Your task to perform on an android device: Open ESPN.com Image 0: 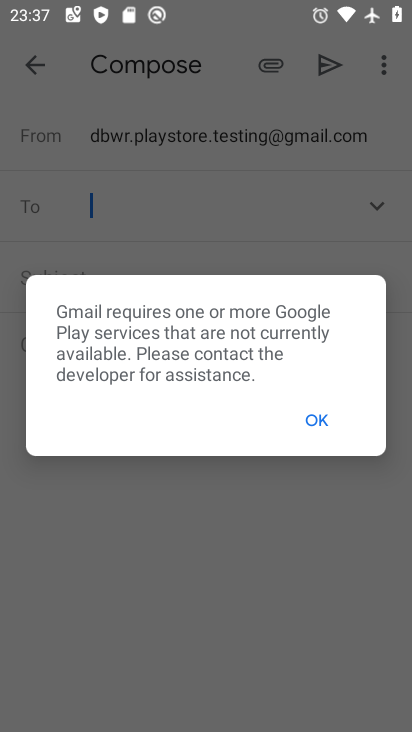
Step 0: press back button
Your task to perform on an android device: Open ESPN.com Image 1: 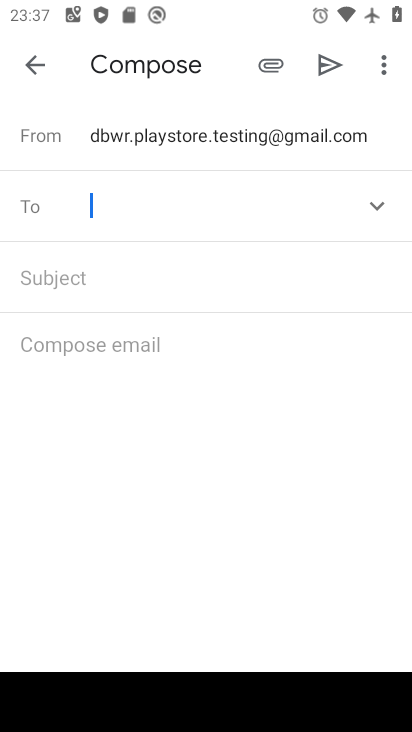
Step 1: press home button
Your task to perform on an android device: Open ESPN.com Image 2: 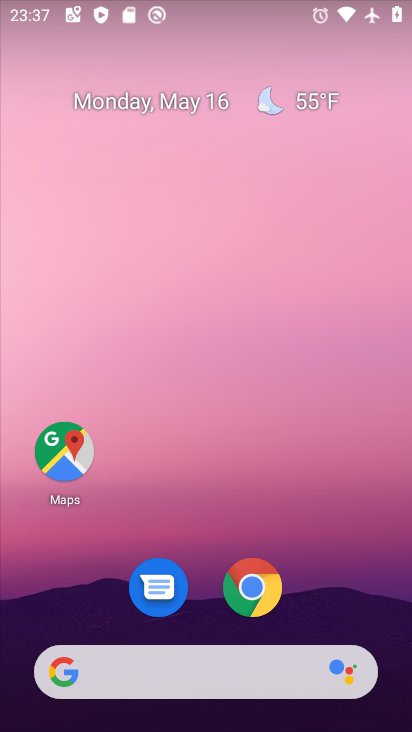
Step 2: drag from (291, 566) to (257, 35)
Your task to perform on an android device: Open ESPN.com Image 3: 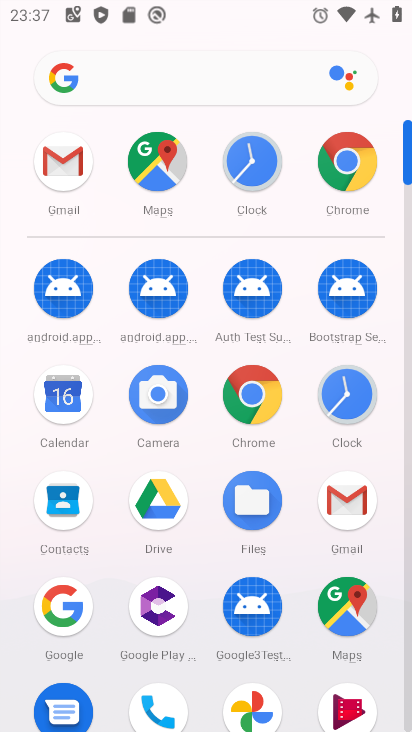
Step 3: click (249, 393)
Your task to perform on an android device: Open ESPN.com Image 4: 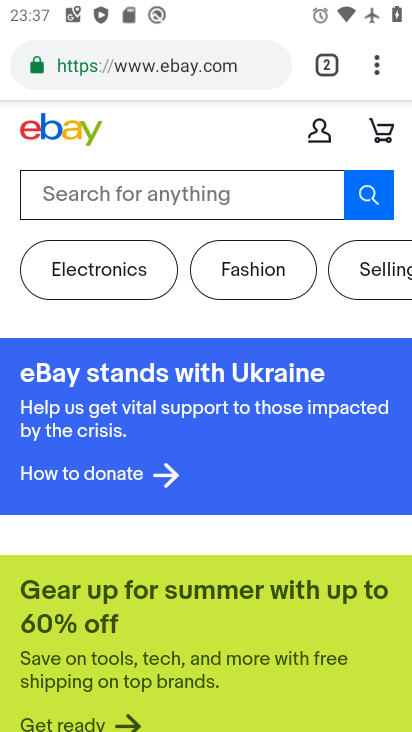
Step 4: click (215, 60)
Your task to perform on an android device: Open ESPN.com Image 5: 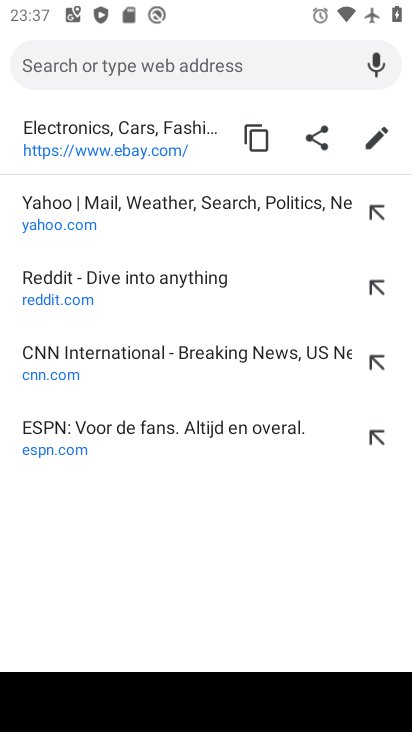
Step 5: click (181, 434)
Your task to perform on an android device: Open ESPN.com Image 6: 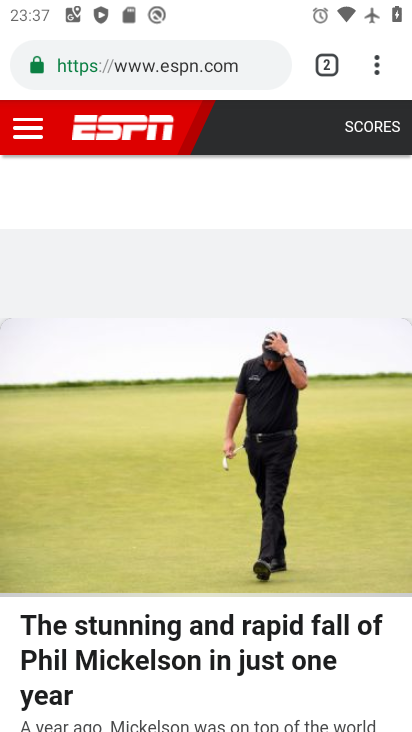
Step 6: task complete